Your task to perform on an android device: Show me recent news Image 0: 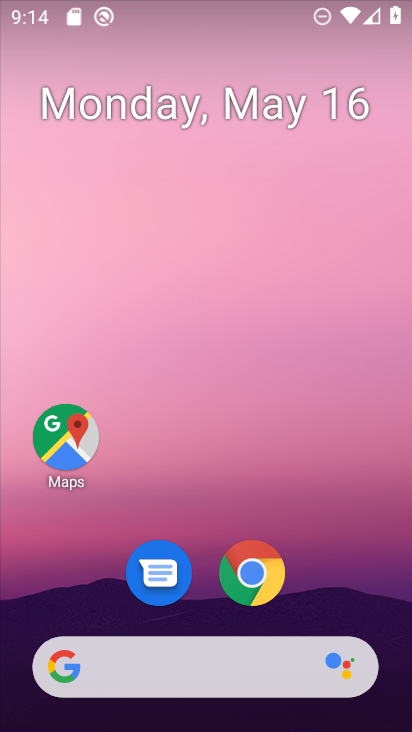
Step 0: click (252, 568)
Your task to perform on an android device: Show me recent news Image 1: 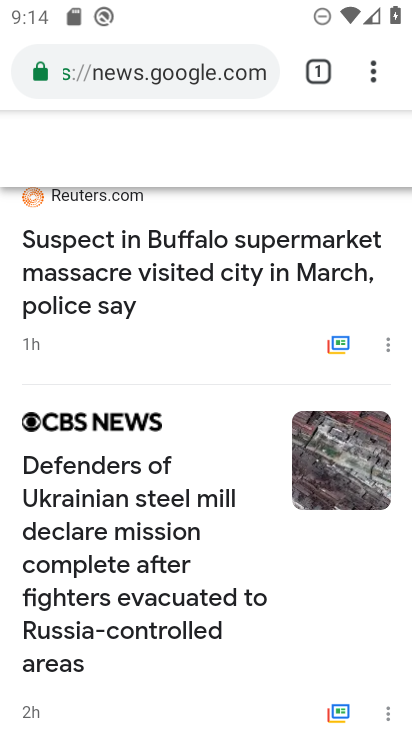
Step 1: task complete